Your task to perform on an android device: turn on sleep mode Image 0: 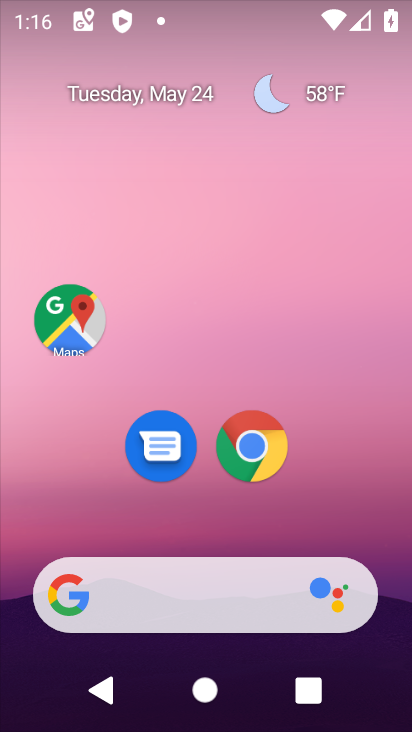
Step 0: drag from (229, 632) to (196, 222)
Your task to perform on an android device: turn on sleep mode Image 1: 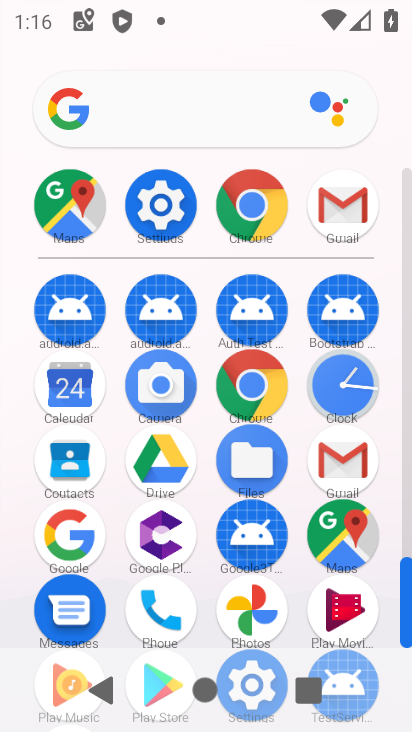
Step 1: click (160, 230)
Your task to perform on an android device: turn on sleep mode Image 2: 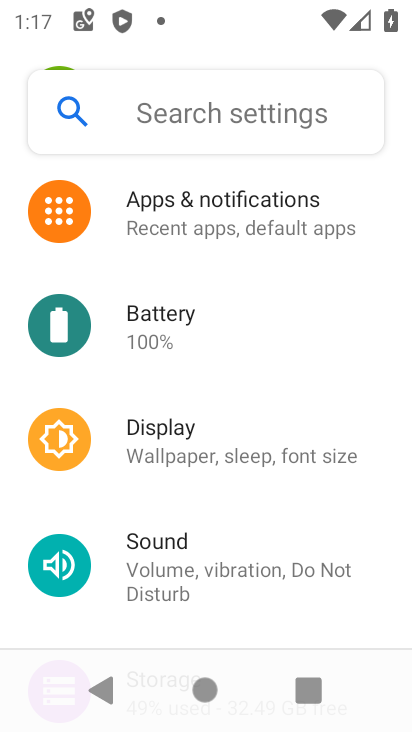
Step 2: drag from (220, 515) to (223, 367)
Your task to perform on an android device: turn on sleep mode Image 3: 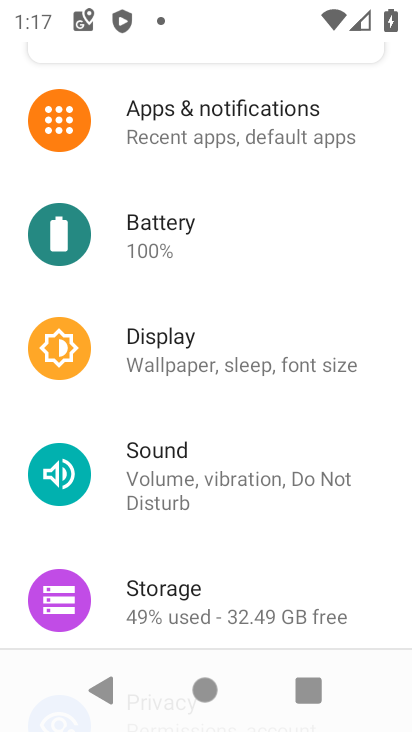
Step 3: drag from (217, 275) to (259, 704)
Your task to perform on an android device: turn on sleep mode Image 4: 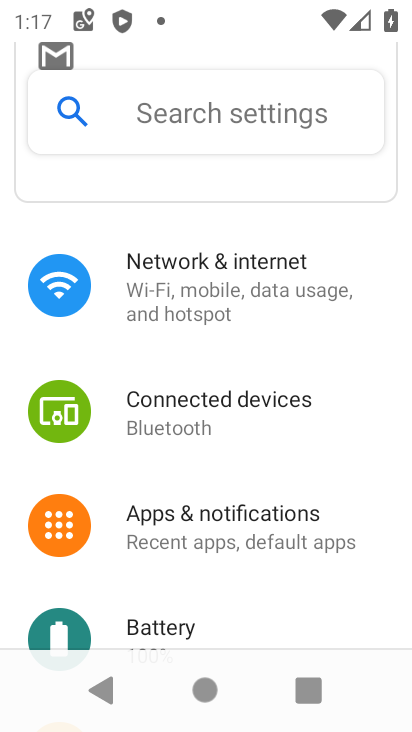
Step 4: drag from (216, 577) to (189, 292)
Your task to perform on an android device: turn on sleep mode Image 5: 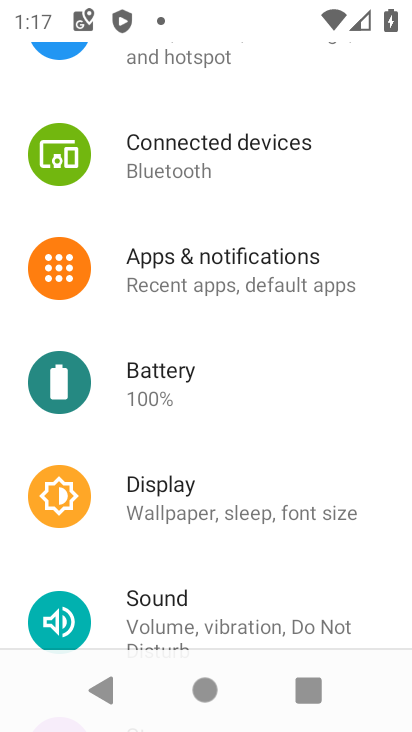
Step 5: drag from (213, 549) to (229, 336)
Your task to perform on an android device: turn on sleep mode Image 6: 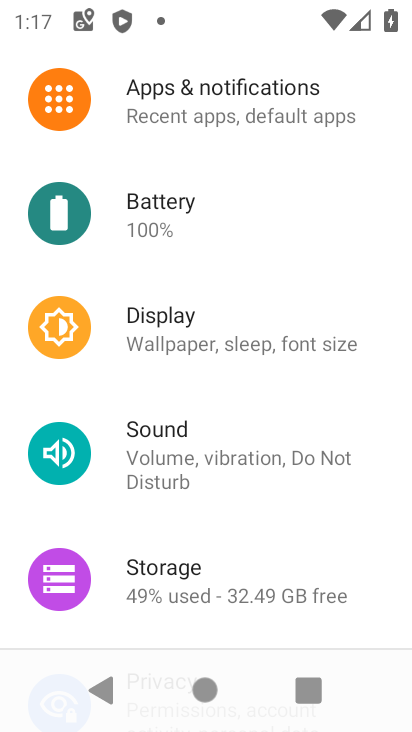
Step 6: click (231, 335)
Your task to perform on an android device: turn on sleep mode Image 7: 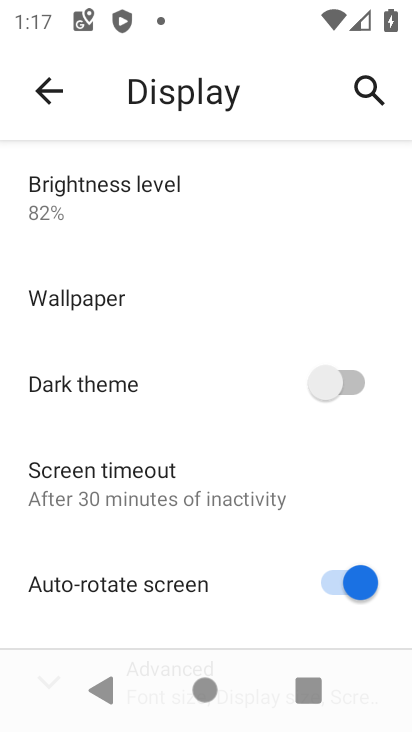
Step 7: drag from (133, 539) to (111, 161)
Your task to perform on an android device: turn on sleep mode Image 8: 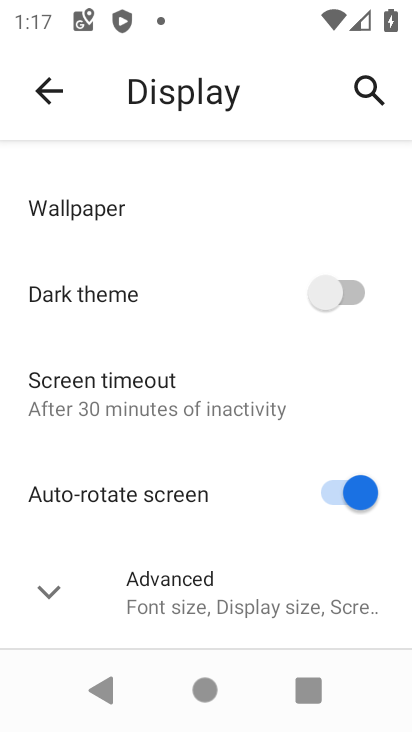
Step 8: click (148, 617)
Your task to perform on an android device: turn on sleep mode Image 9: 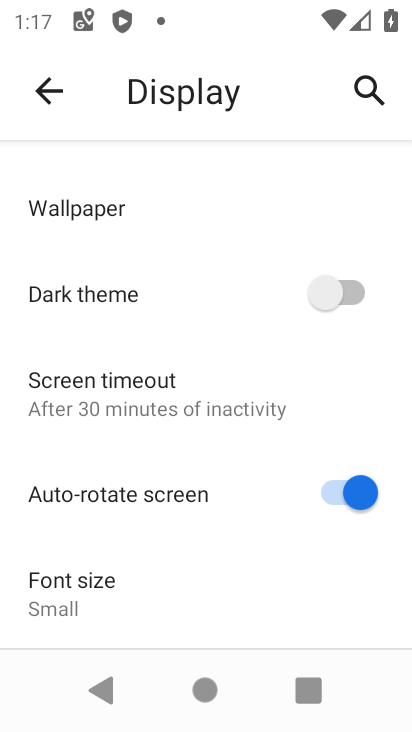
Step 9: task complete